Your task to perform on an android device: turn off airplane mode Image 0: 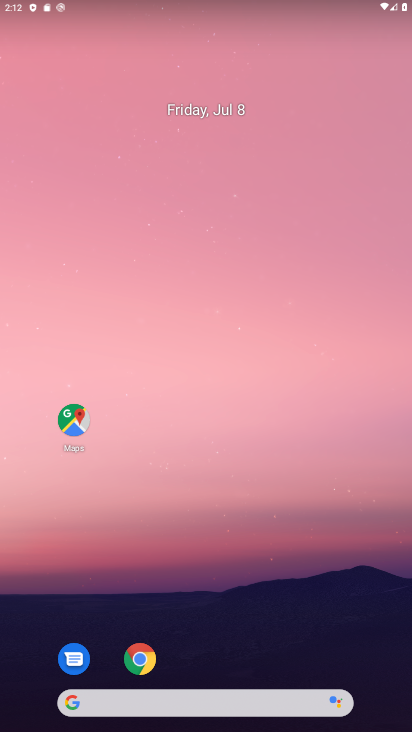
Step 0: drag from (340, 657) to (265, 49)
Your task to perform on an android device: turn off airplane mode Image 1: 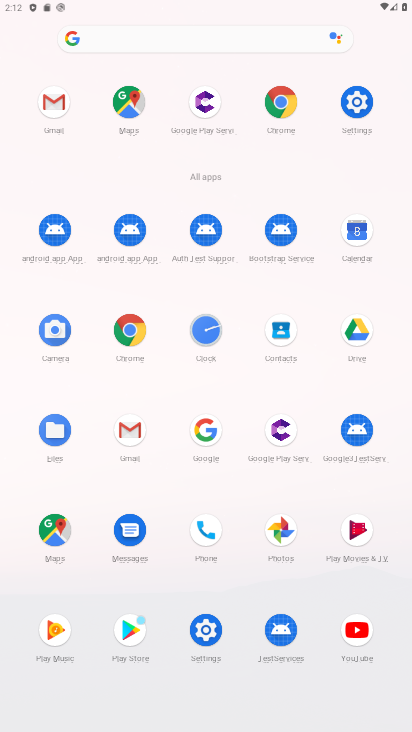
Step 1: click (373, 95)
Your task to perform on an android device: turn off airplane mode Image 2: 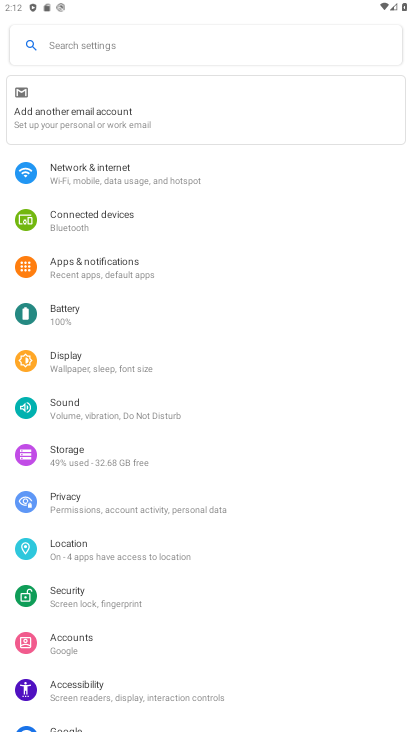
Step 2: click (146, 171)
Your task to perform on an android device: turn off airplane mode Image 3: 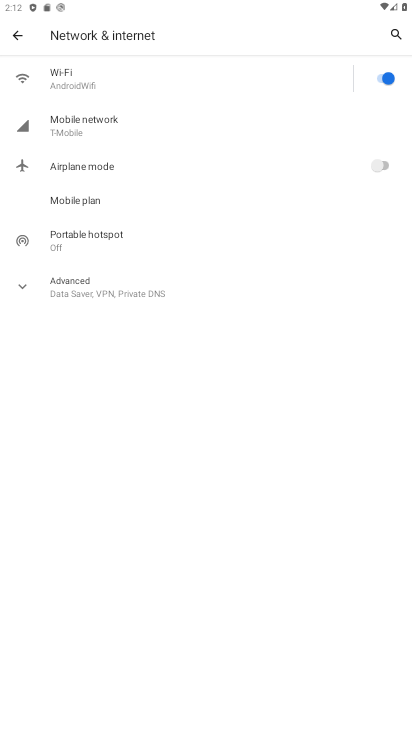
Step 3: task complete